Your task to perform on an android device: turn on translation in the chrome app Image 0: 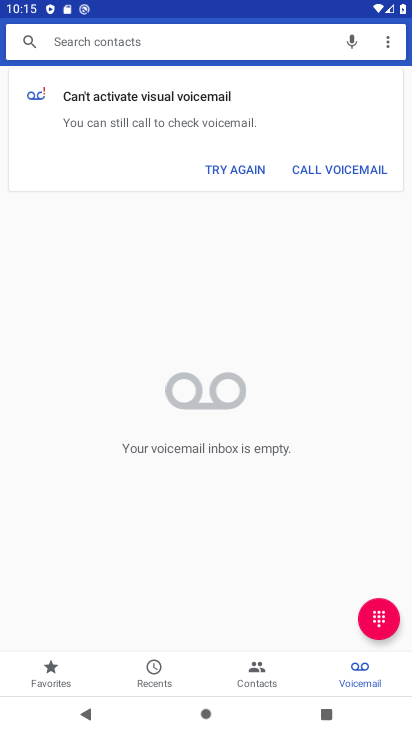
Step 0: press home button
Your task to perform on an android device: turn on translation in the chrome app Image 1: 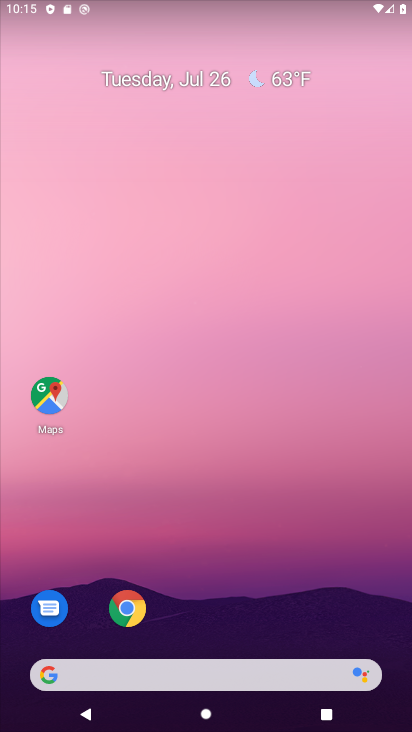
Step 1: click (132, 606)
Your task to perform on an android device: turn on translation in the chrome app Image 2: 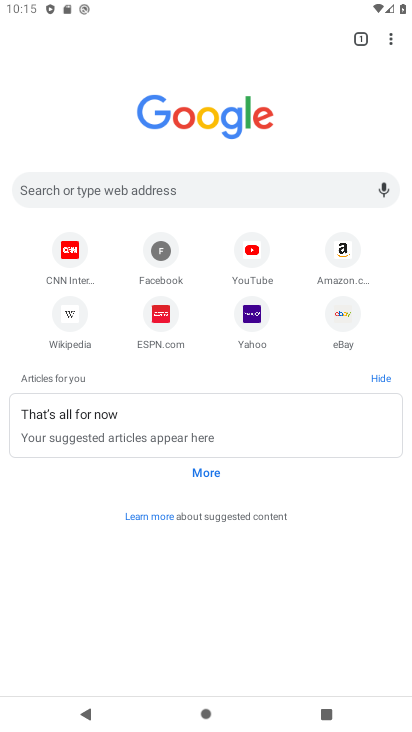
Step 2: click (377, 36)
Your task to perform on an android device: turn on translation in the chrome app Image 3: 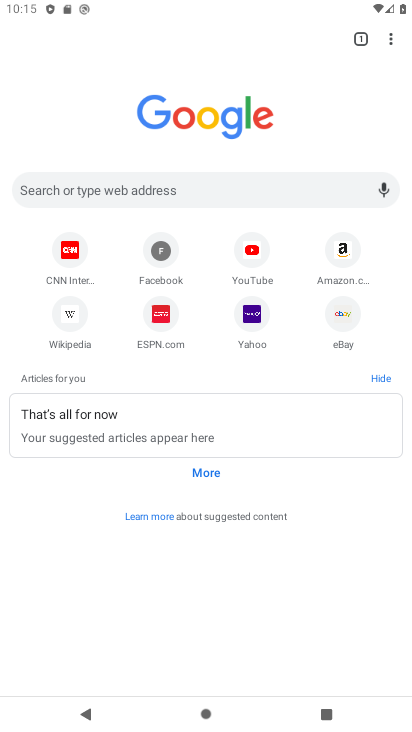
Step 3: click (383, 41)
Your task to perform on an android device: turn on translation in the chrome app Image 4: 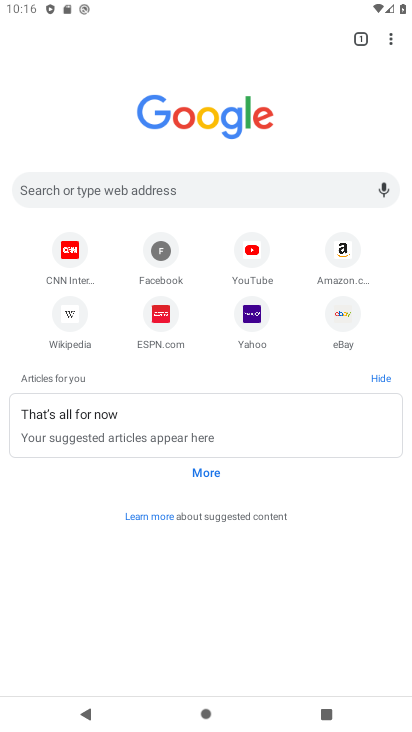
Step 4: drag from (383, 41) to (245, 327)
Your task to perform on an android device: turn on translation in the chrome app Image 5: 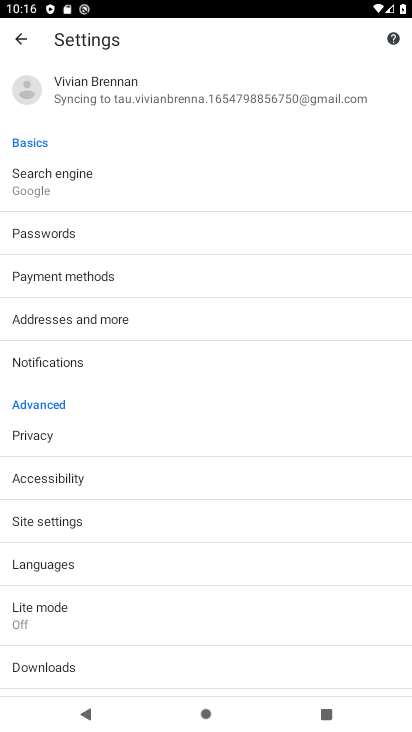
Step 5: click (45, 560)
Your task to perform on an android device: turn on translation in the chrome app Image 6: 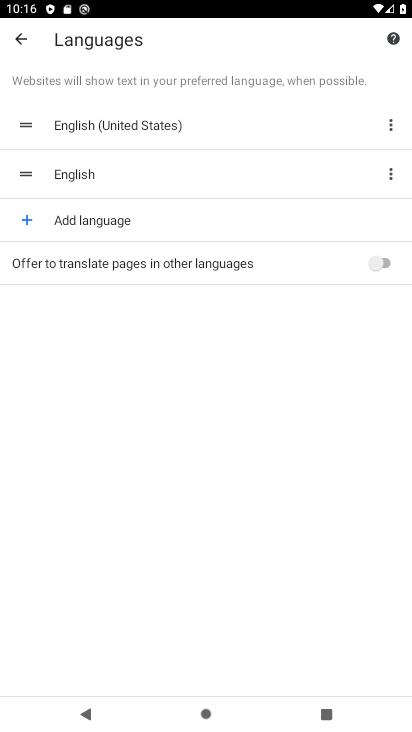
Step 6: click (381, 262)
Your task to perform on an android device: turn on translation in the chrome app Image 7: 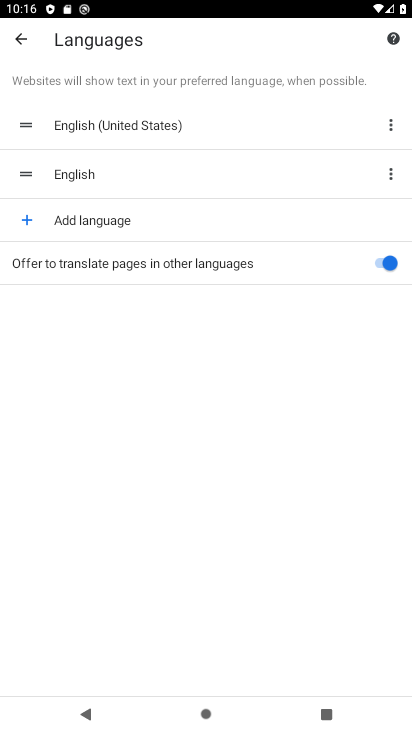
Step 7: task complete